Your task to perform on an android device: Open location settings Image 0: 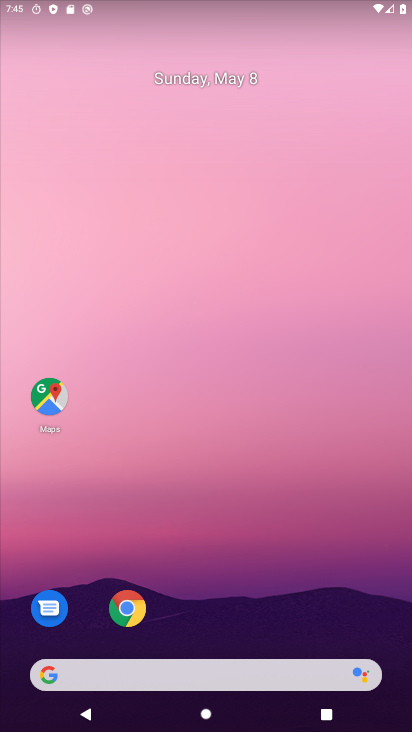
Step 0: drag from (235, 635) to (313, 129)
Your task to perform on an android device: Open location settings Image 1: 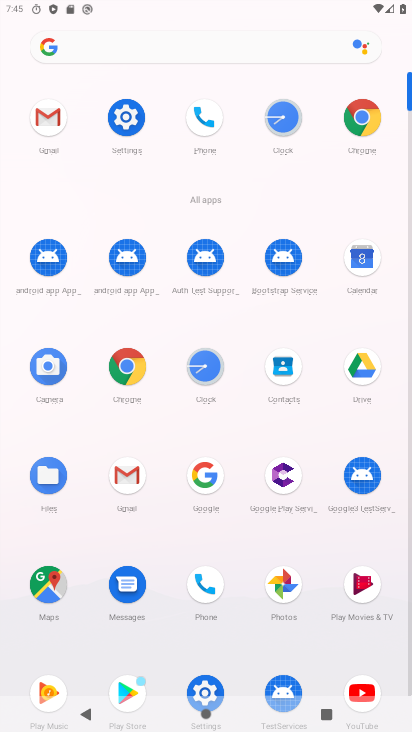
Step 1: click (130, 122)
Your task to perform on an android device: Open location settings Image 2: 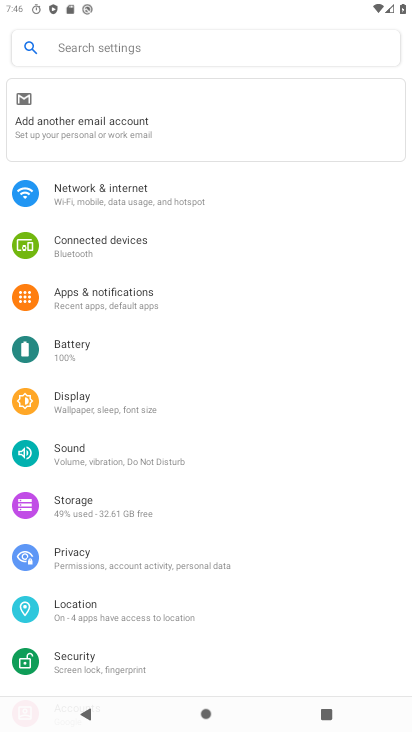
Step 2: click (82, 606)
Your task to perform on an android device: Open location settings Image 3: 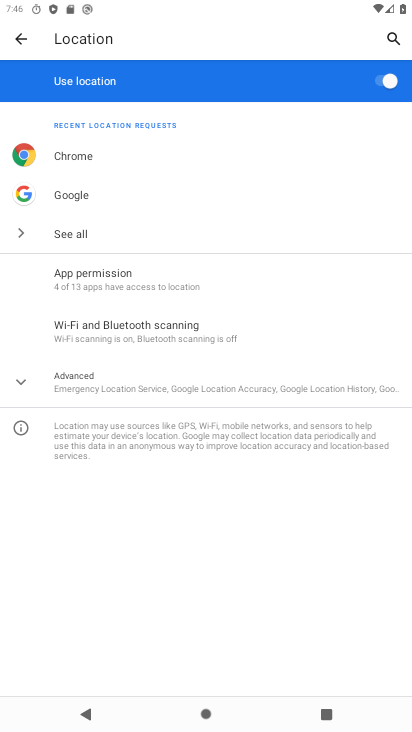
Step 3: task complete